Your task to perform on an android device: turn on improve location accuracy Image 0: 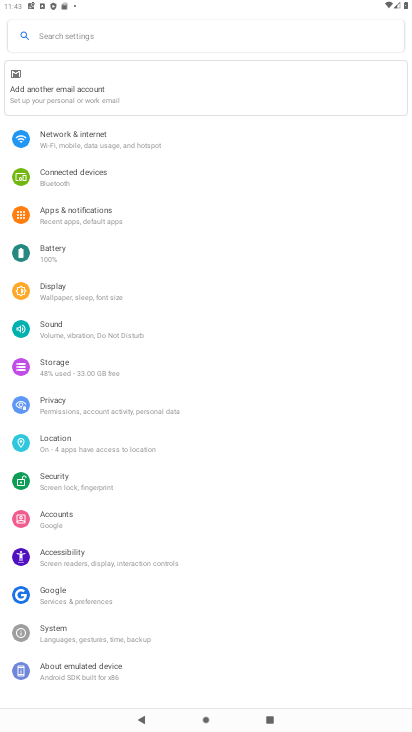
Step 0: click (86, 447)
Your task to perform on an android device: turn on improve location accuracy Image 1: 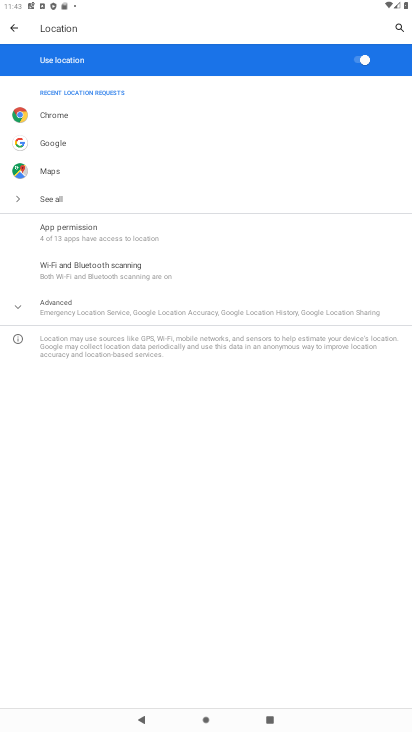
Step 1: click (51, 306)
Your task to perform on an android device: turn on improve location accuracy Image 2: 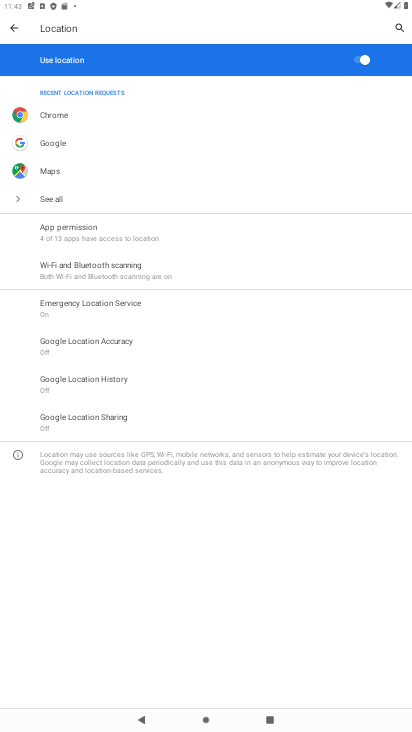
Step 2: click (82, 347)
Your task to perform on an android device: turn on improve location accuracy Image 3: 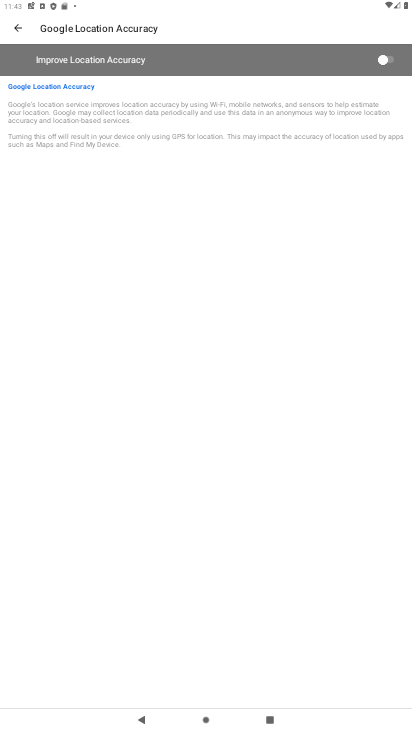
Step 3: click (392, 63)
Your task to perform on an android device: turn on improve location accuracy Image 4: 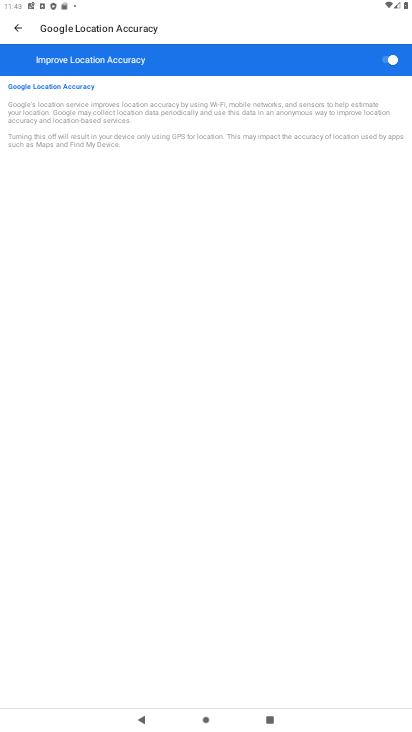
Step 4: task complete